Your task to perform on an android device: open app "Move to iOS" (install if not already installed) Image 0: 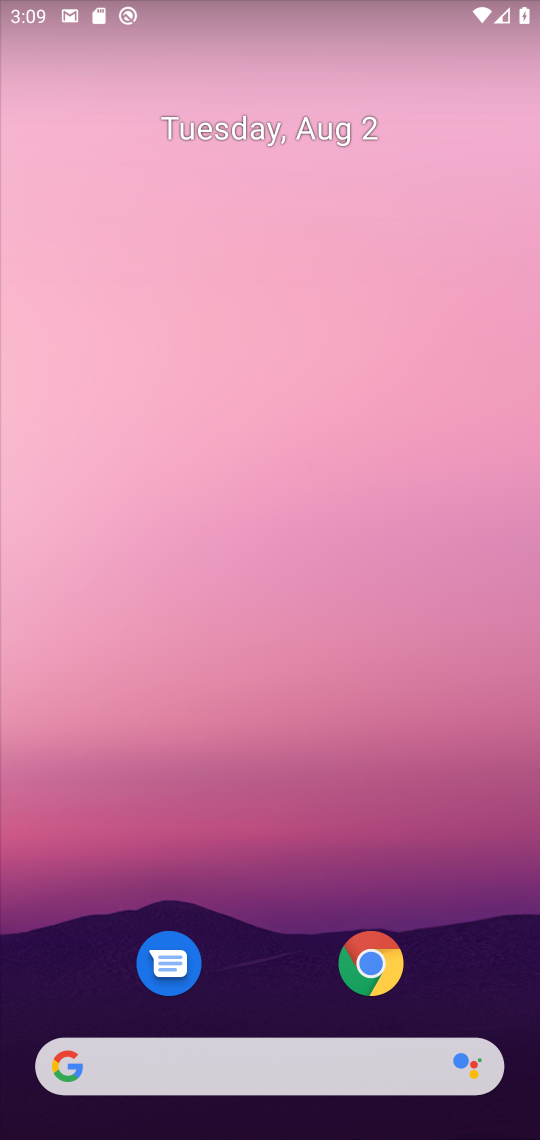
Step 0: drag from (284, 947) to (254, 184)
Your task to perform on an android device: open app "Move to iOS" (install if not already installed) Image 1: 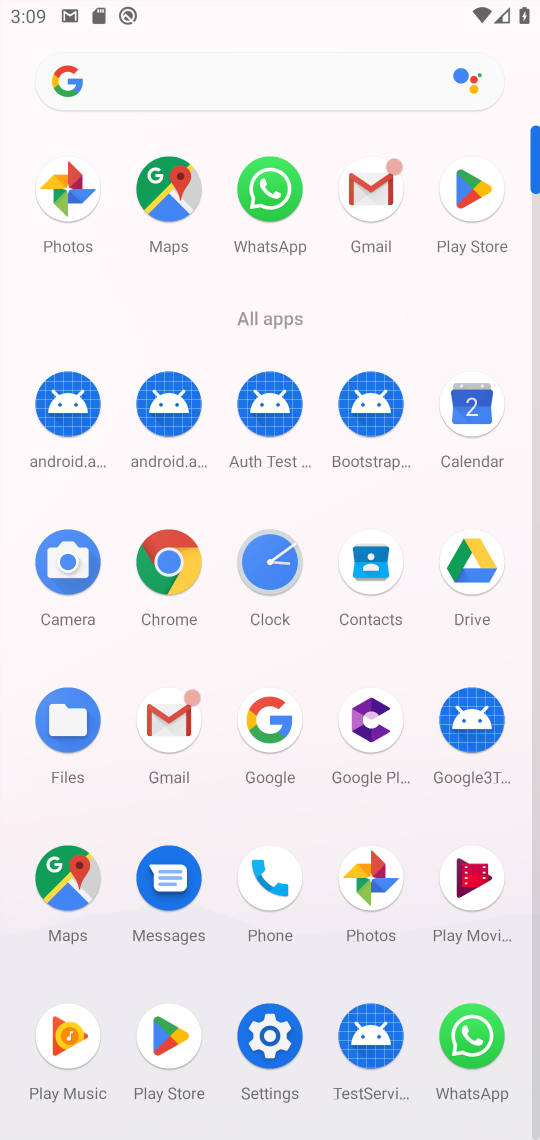
Step 1: click (483, 193)
Your task to perform on an android device: open app "Move to iOS" (install if not already installed) Image 2: 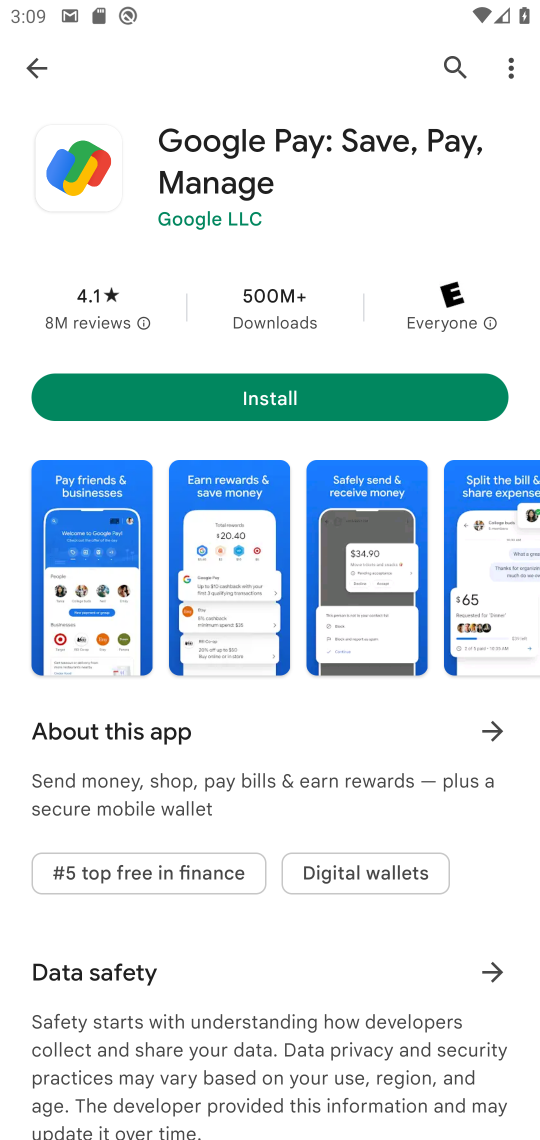
Step 2: click (444, 76)
Your task to perform on an android device: open app "Move to iOS" (install if not already installed) Image 3: 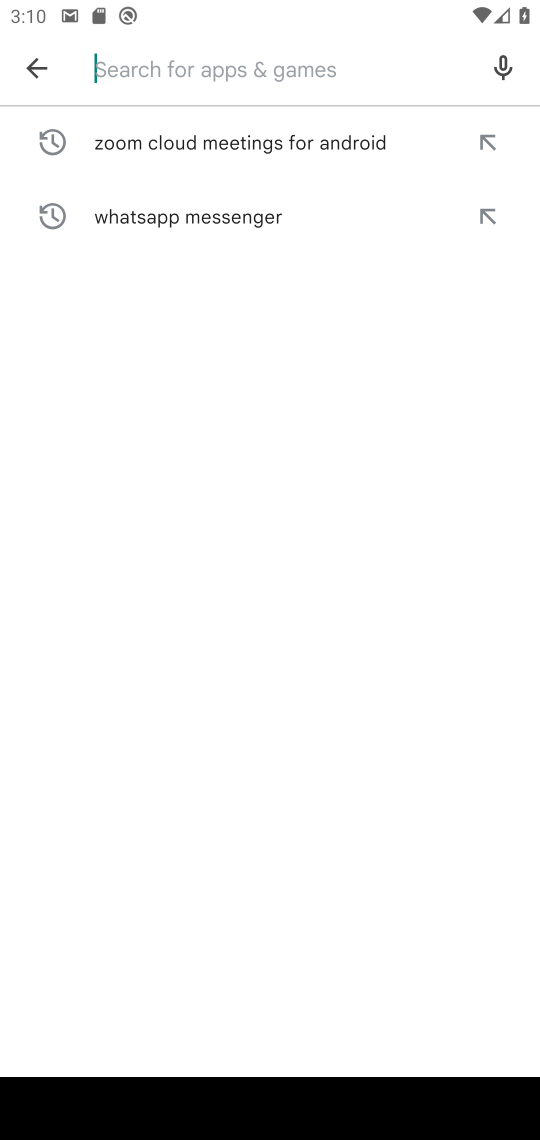
Step 3: type "move to ios"
Your task to perform on an android device: open app "Move to iOS" (install if not already installed) Image 4: 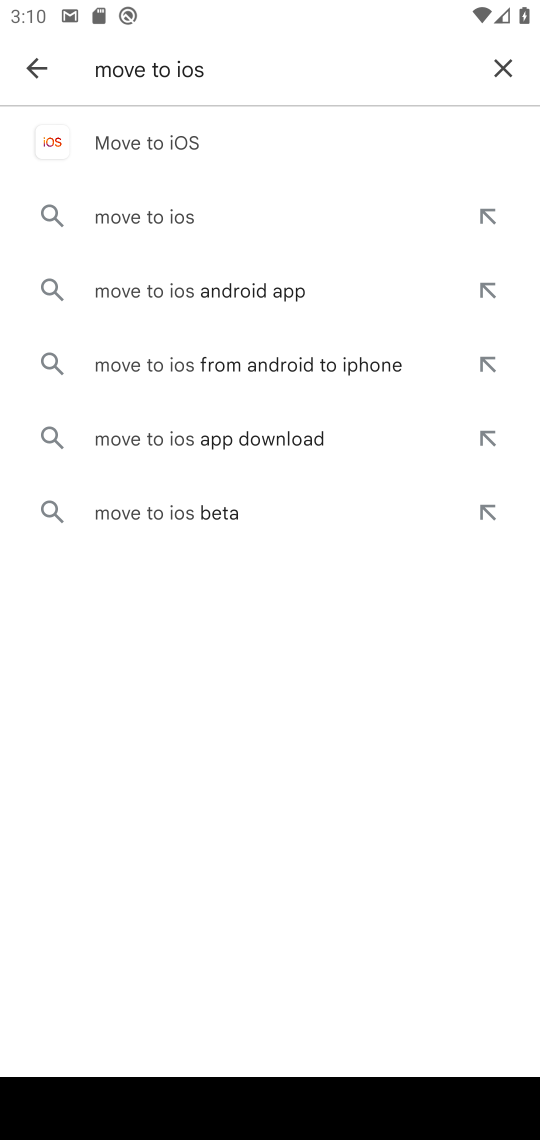
Step 4: click (182, 144)
Your task to perform on an android device: open app "Move to iOS" (install if not already installed) Image 5: 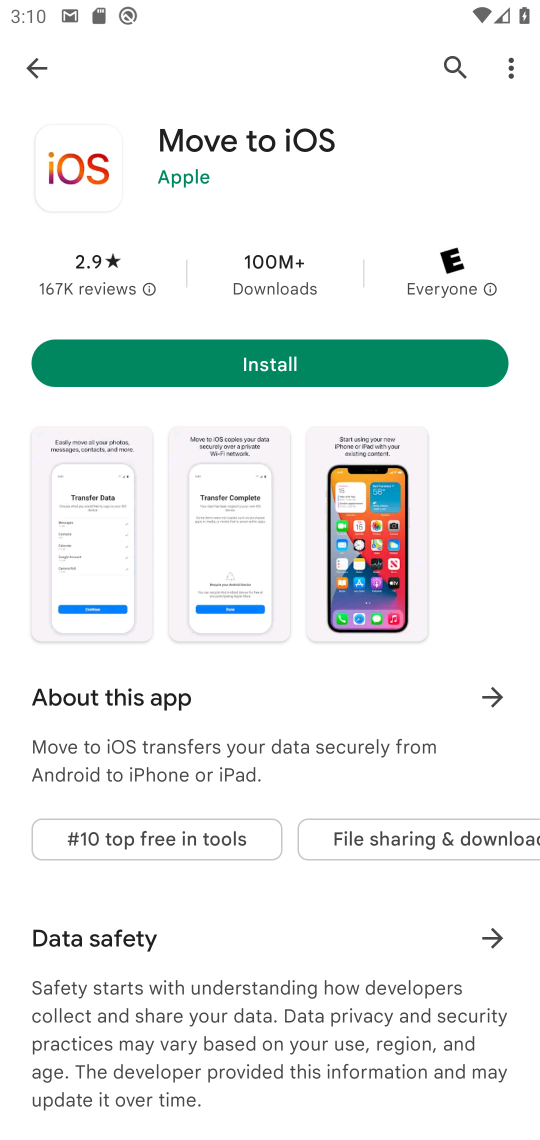
Step 5: click (275, 352)
Your task to perform on an android device: open app "Move to iOS" (install if not already installed) Image 6: 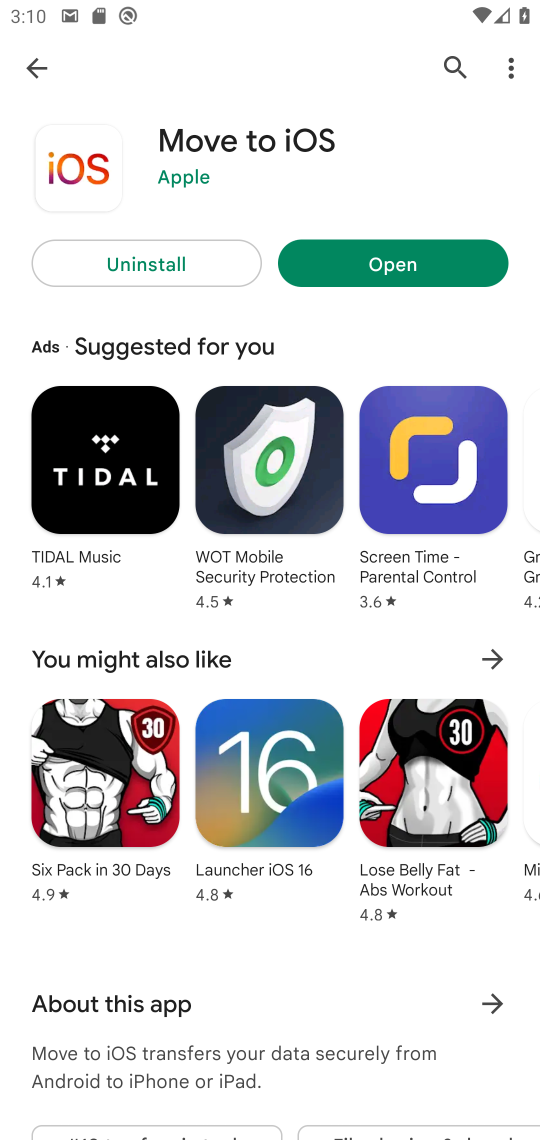
Step 6: click (434, 267)
Your task to perform on an android device: open app "Move to iOS" (install if not already installed) Image 7: 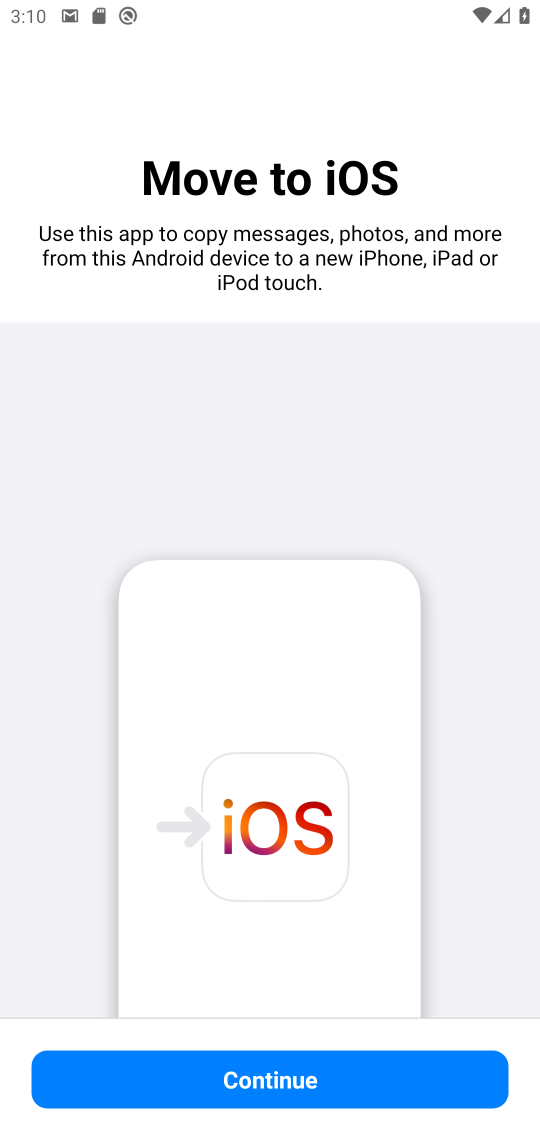
Step 7: task complete